Your task to perform on an android device: toggle sleep mode Image 0: 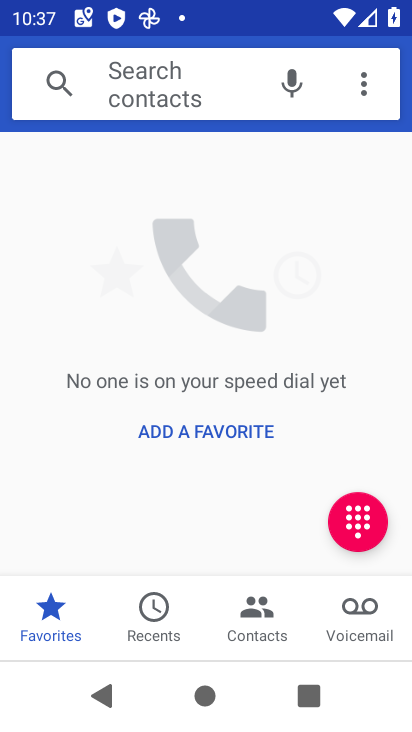
Step 0: press home button
Your task to perform on an android device: toggle sleep mode Image 1: 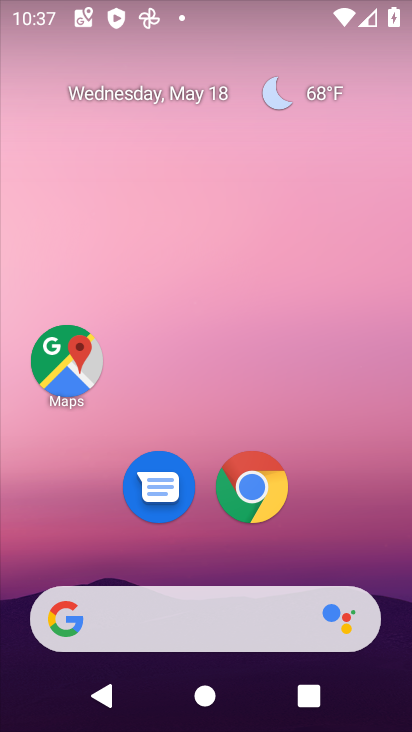
Step 1: drag from (351, 525) to (327, 187)
Your task to perform on an android device: toggle sleep mode Image 2: 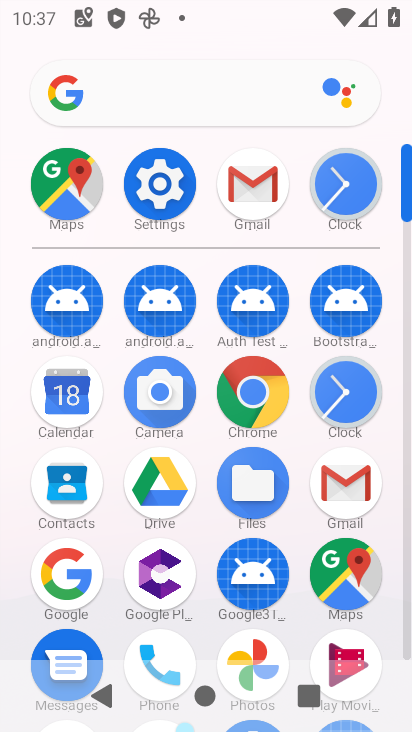
Step 2: click (159, 206)
Your task to perform on an android device: toggle sleep mode Image 3: 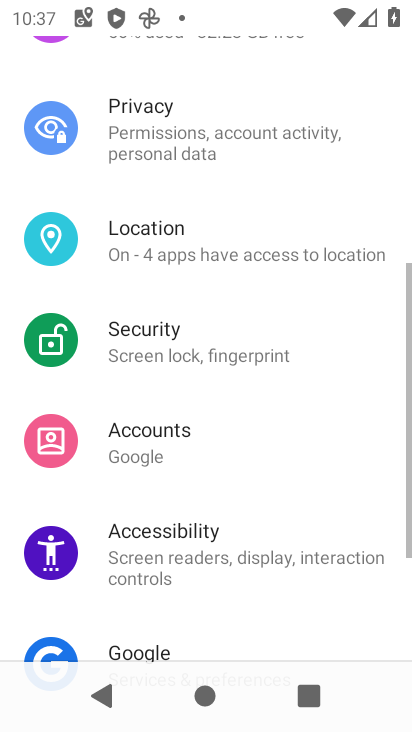
Step 3: drag from (227, 87) to (295, 449)
Your task to perform on an android device: toggle sleep mode Image 4: 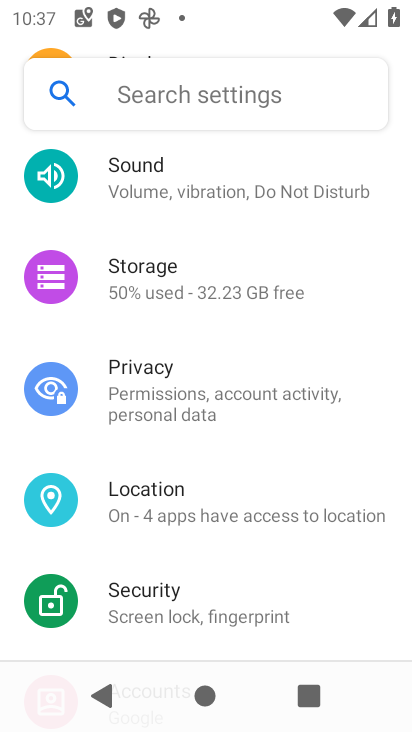
Step 4: click (241, 101)
Your task to perform on an android device: toggle sleep mode Image 5: 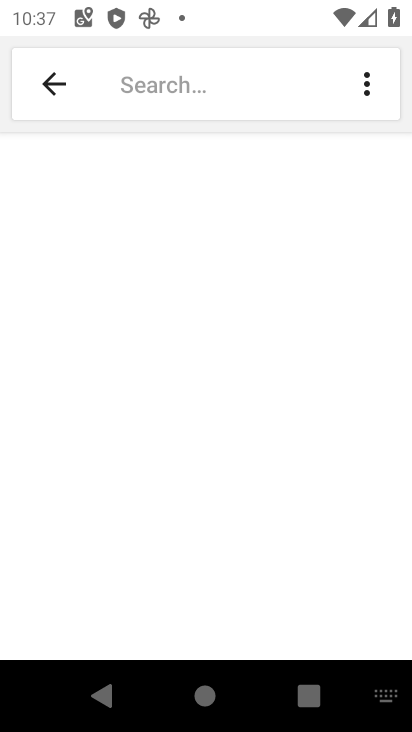
Step 5: type "sleep mode"
Your task to perform on an android device: toggle sleep mode Image 6: 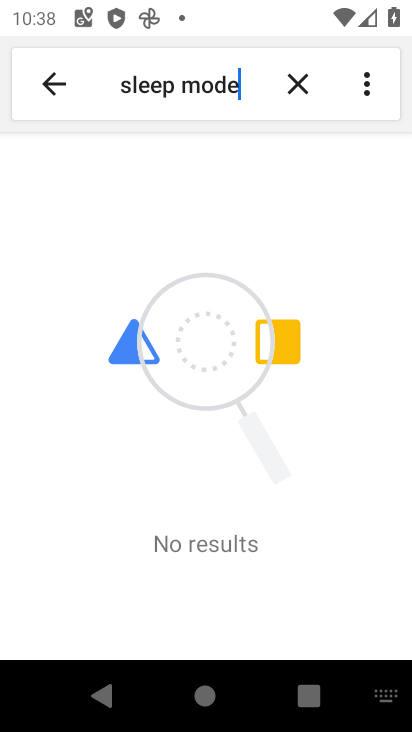
Step 6: task complete